Your task to perform on an android device: Go to ESPN.com Image 0: 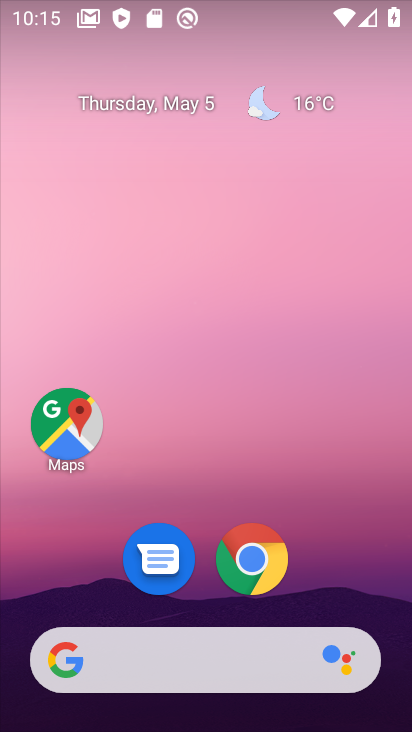
Step 0: click (290, 561)
Your task to perform on an android device: Go to ESPN.com Image 1: 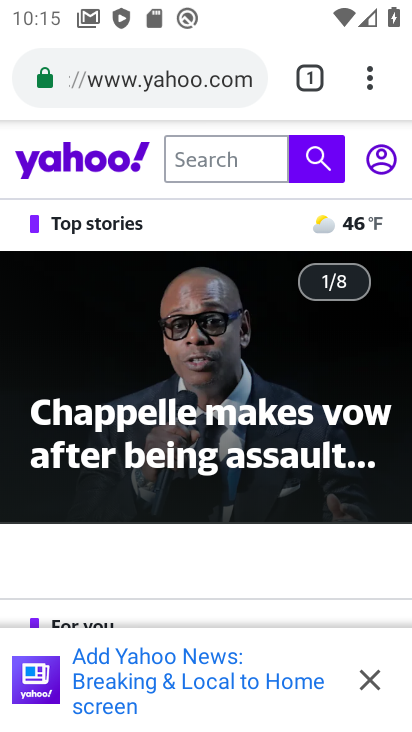
Step 1: click (296, 94)
Your task to perform on an android device: Go to ESPN.com Image 2: 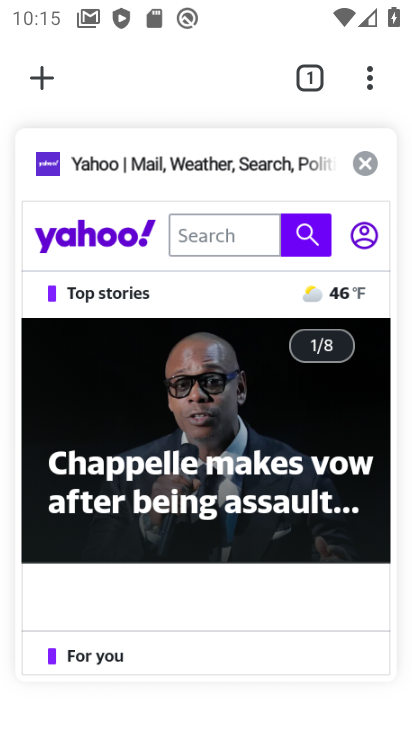
Step 2: click (51, 71)
Your task to perform on an android device: Go to ESPN.com Image 3: 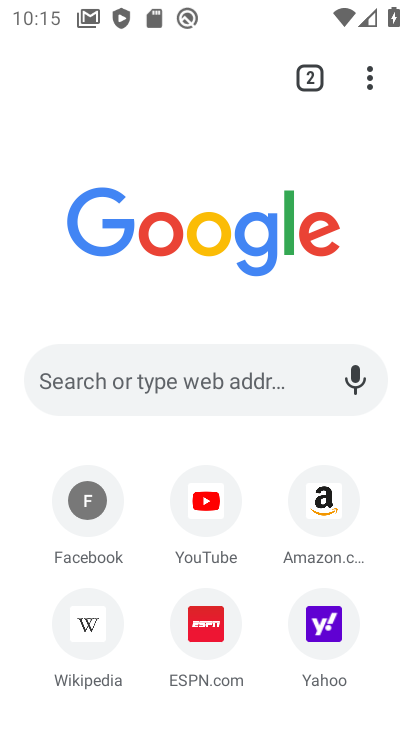
Step 3: click (200, 611)
Your task to perform on an android device: Go to ESPN.com Image 4: 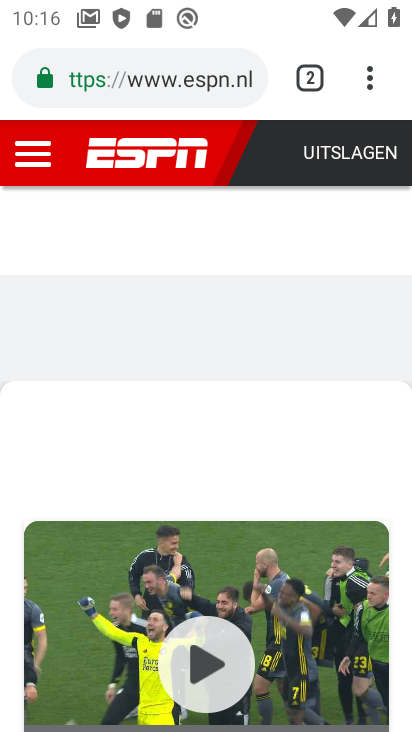
Step 4: task complete